Your task to perform on an android device: open a bookmark in the chrome app Image 0: 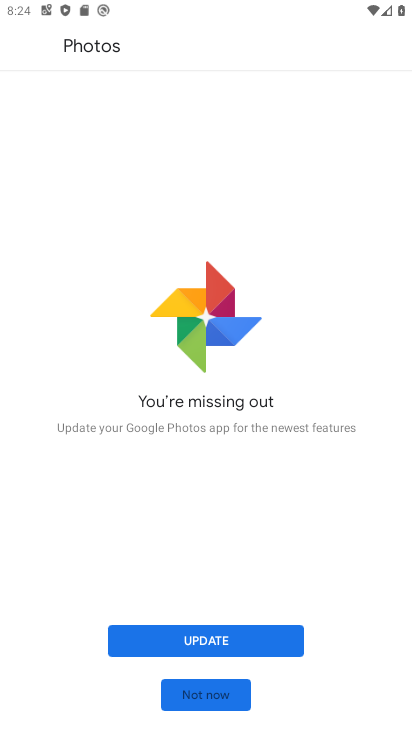
Step 0: press home button
Your task to perform on an android device: open a bookmark in the chrome app Image 1: 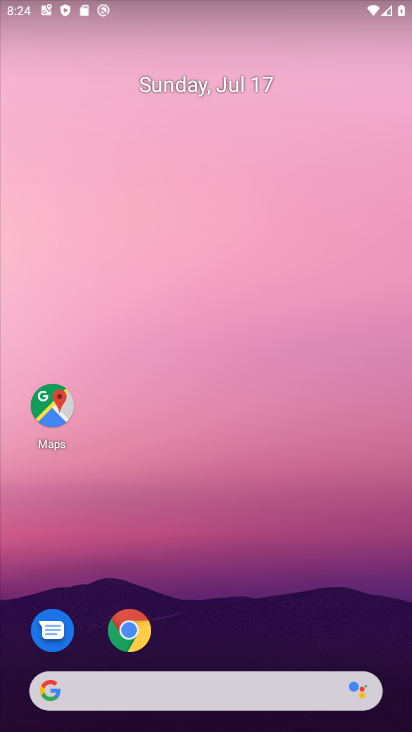
Step 1: click (126, 630)
Your task to perform on an android device: open a bookmark in the chrome app Image 2: 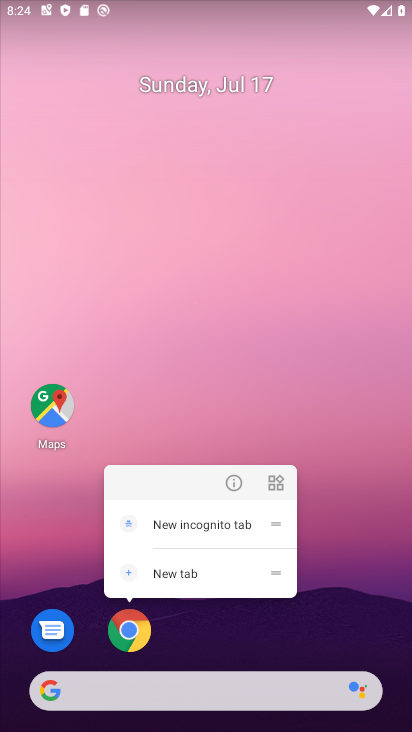
Step 2: click (126, 630)
Your task to perform on an android device: open a bookmark in the chrome app Image 3: 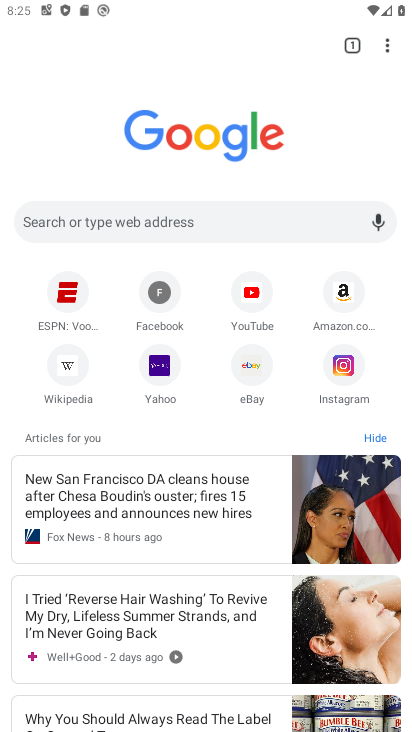
Step 3: click (389, 53)
Your task to perform on an android device: open a bookmark in the chrome app Image 4: 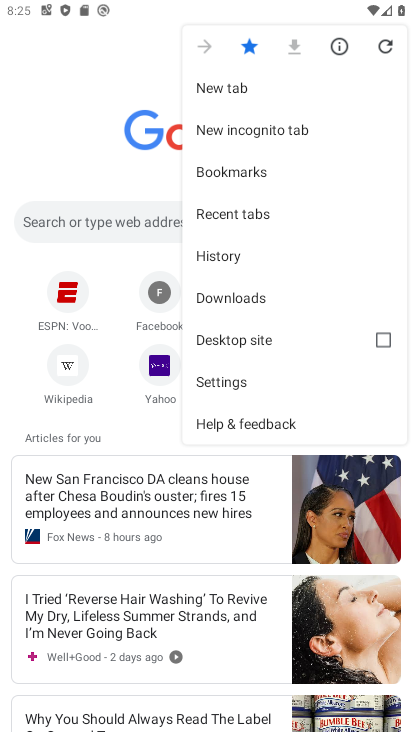
Step 4: click (267, 169)
Your task to perform on an android device: open a bookmark in the chrome app Image 5: 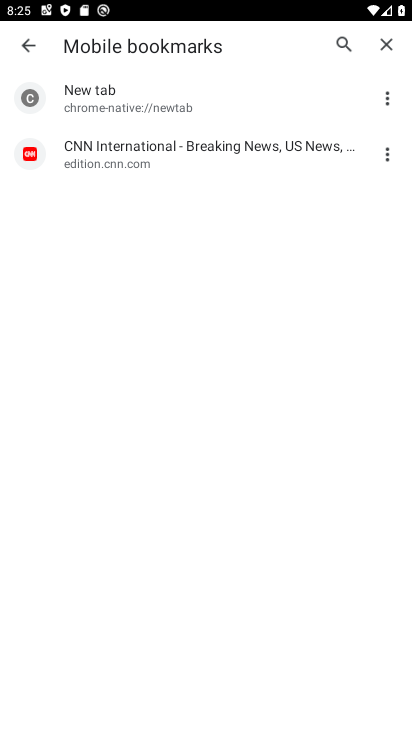
Step 5: click (297, 148)
Your task to perform on an android device: open a bookmark in the chrome app Image 6: 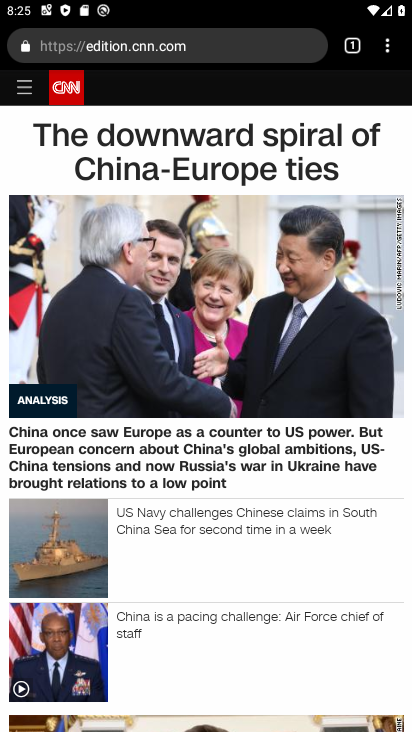
Step 6: task complete